Your task to perform on an android device: Clear the cart on walmart.com. Add "usb-a to usb-b" to the cart on walmart.com Image 0: 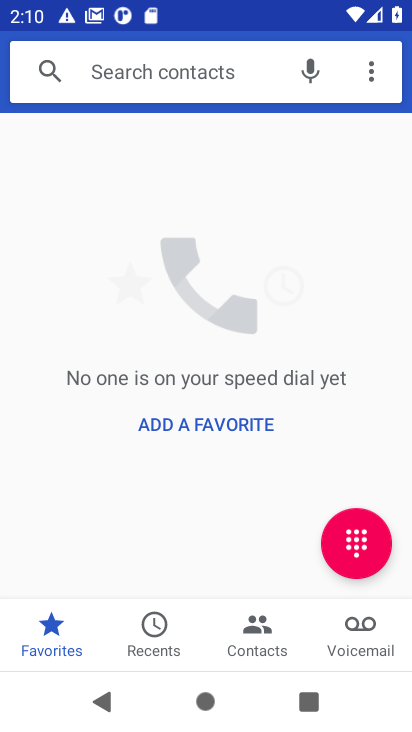
Step 0: press home button
Your task to perform on an android device: Clear the cart on walmart.com. Add "usb-a to usb-b" to the cart on walmart.com Image 1: 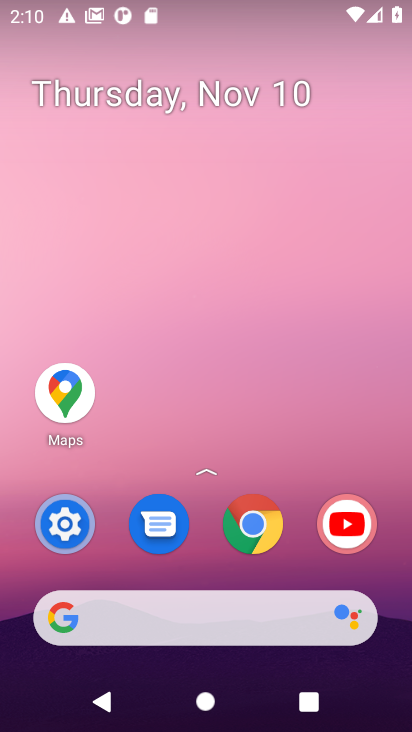
Step 1: click (258, 524)
Your task to perform on an android device: Clear the cart on walmart.com. Add "usb-a to usb-b" to the cart on walmart.com Image 2: 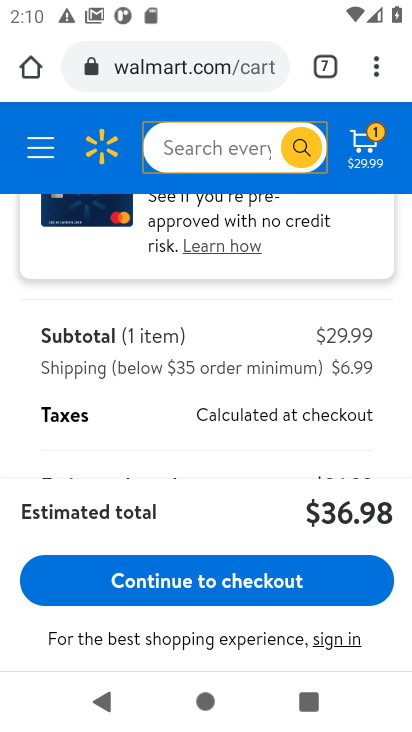
Step 2: task complete